Your task to perform on an android device: turn on notifications settings in the gmail app Image 0: 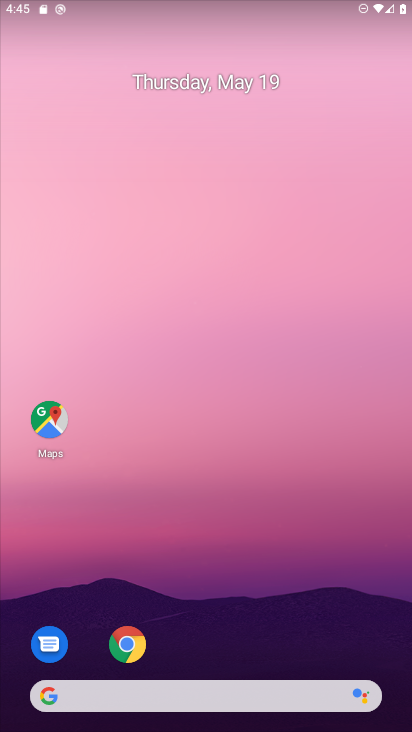
Step 0: drag from (284, 592) to (356, 76)
Your task to perform on an android device: turn on notifications settings in the gmail app Image 1: 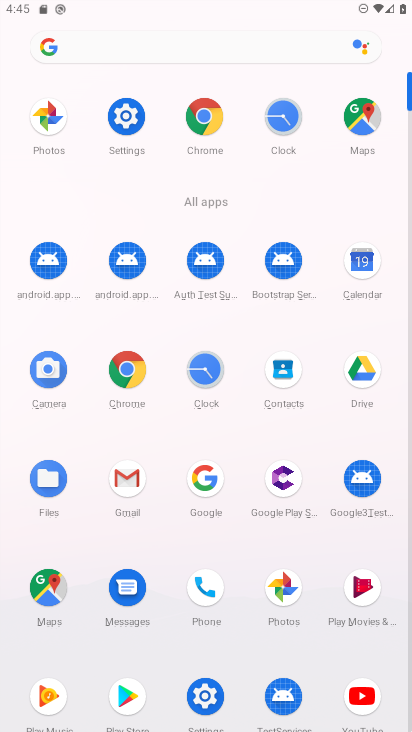
Step 1: click (127, 475)
Your task to perform on an android device: turn on notifications settings in the gmail app Image 2: 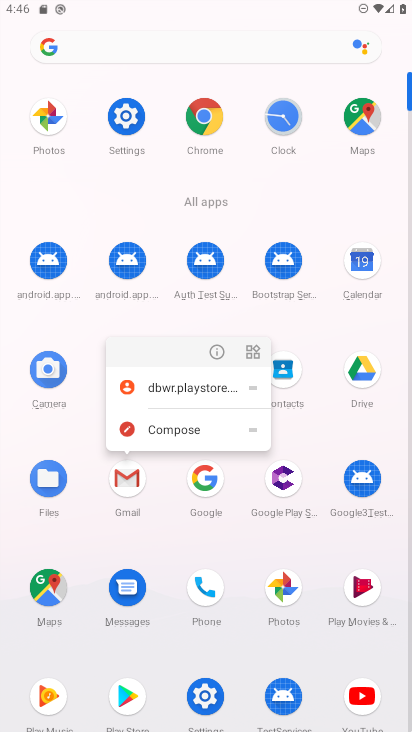
Step 2: click (219, 356)
Your task to perform on an android device: turn on notifications settings in the gmail app Image 3: 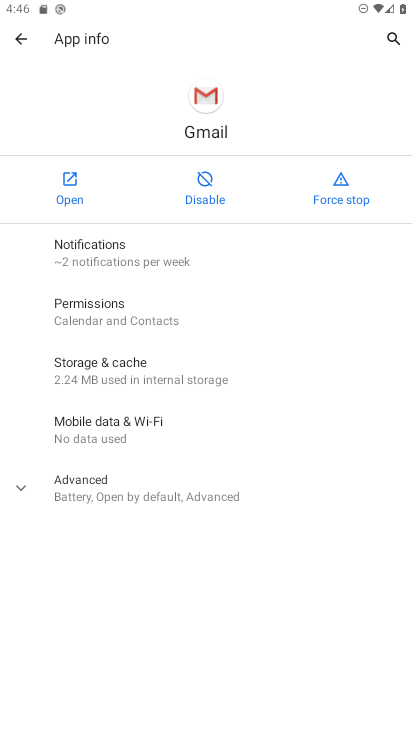
Step 3: click (263, 264)
Your task to perform on an android device: turn on notifications settings in the gmail app Image 4: 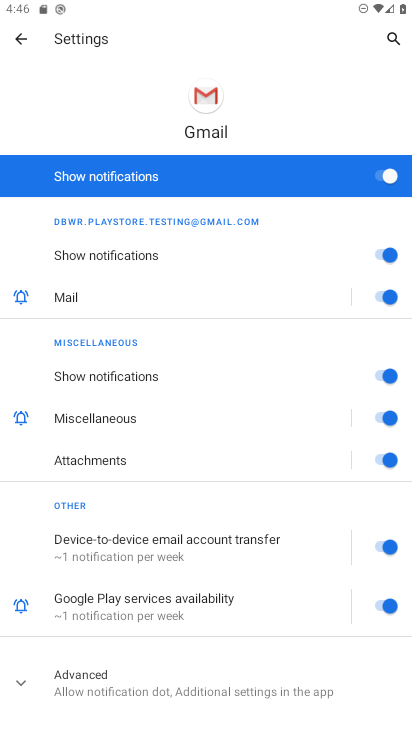
Step 4: task complete